Your task to perform on an android device: turn off wifi Image 0: 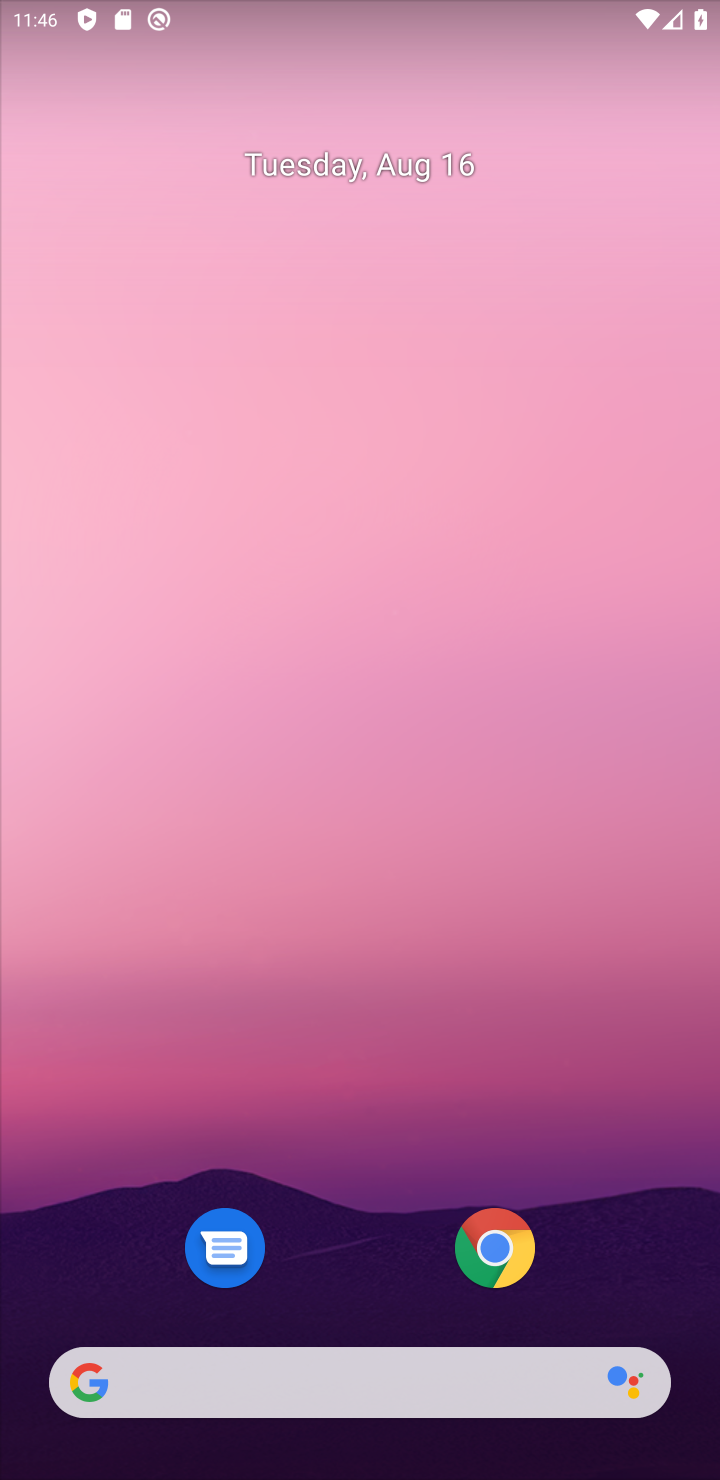
Step 0: drag from (433, 1064) to (392, 292)
Your task to perform on an android device: turn off wifi Image 1: 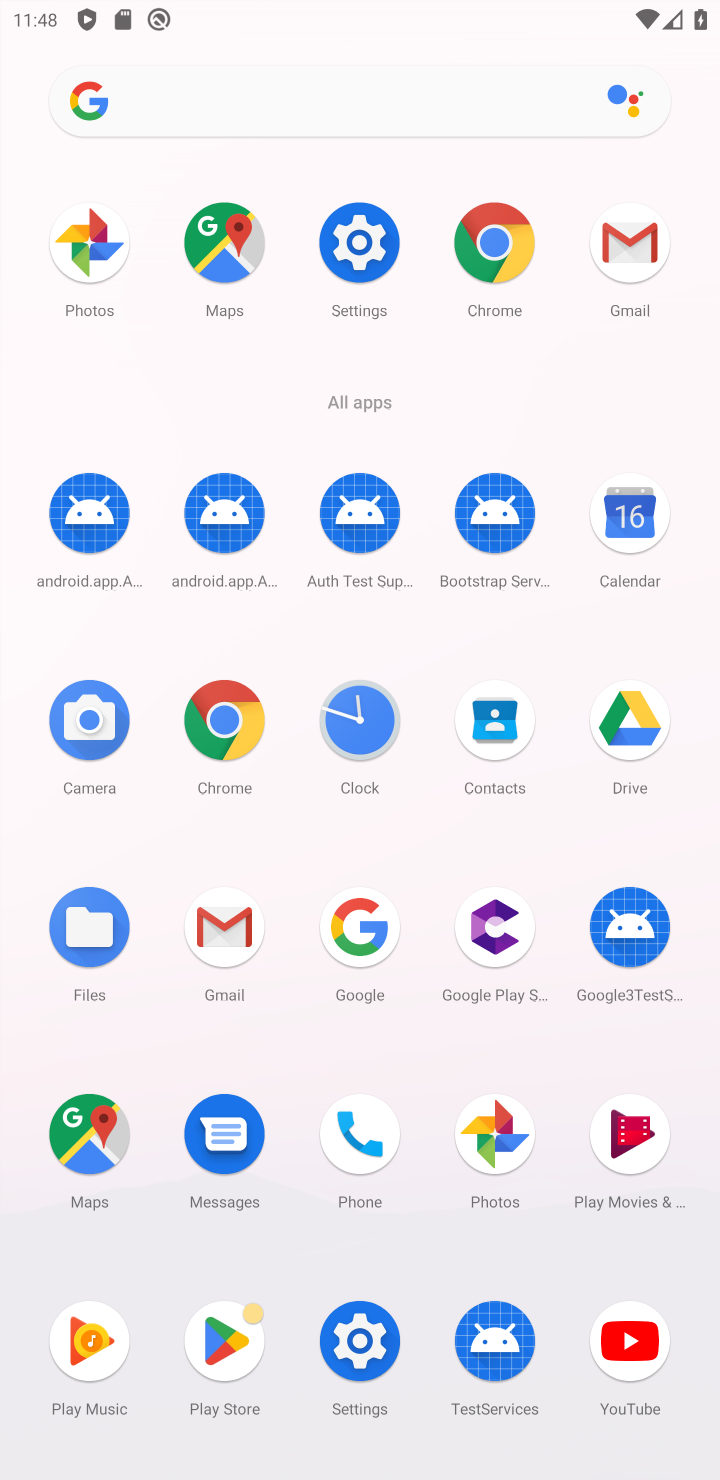
Step 1: click (351, 1332)
Your task to perform on an android device: turn off wifi Image 2: 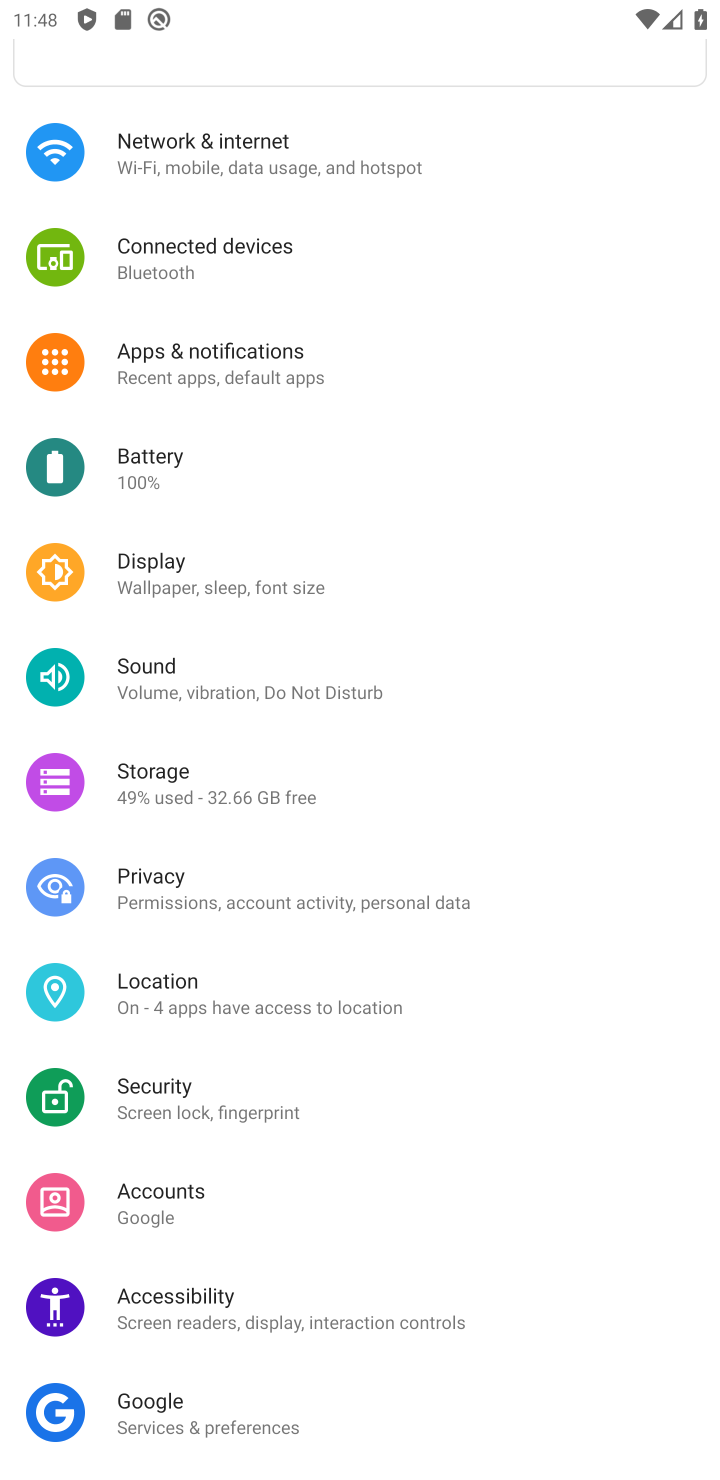
Step 2: task complete